Your task to perform on an android device: check out phone information Image 0: 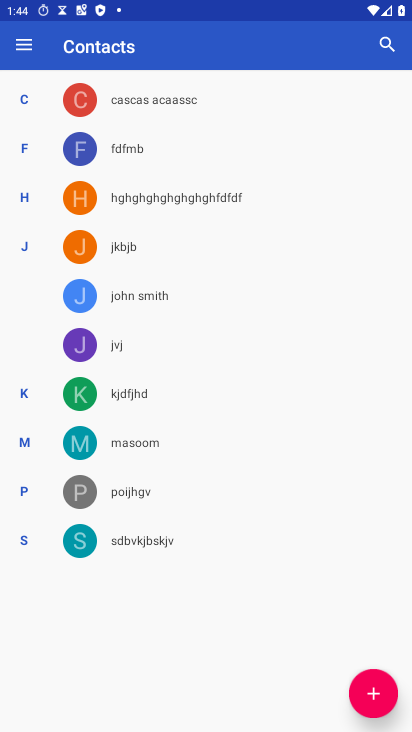
Step 0: press home button
Your task to perform on an android device: check out phone information Image 1: 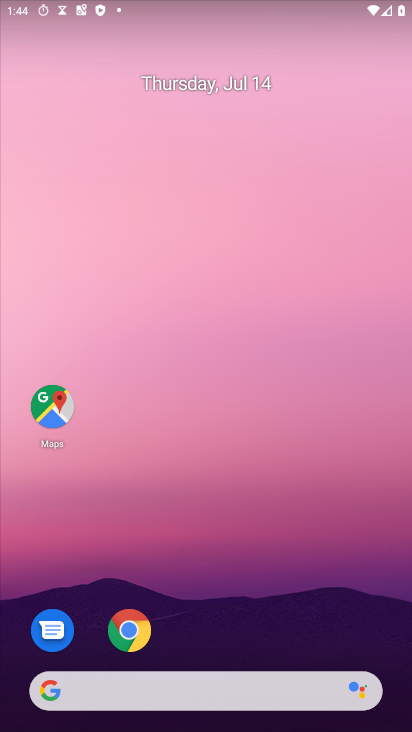
Step 1: drag from (175, 686) to (240, 153)
Your task to perform on an android device: check out phone information Image 2: 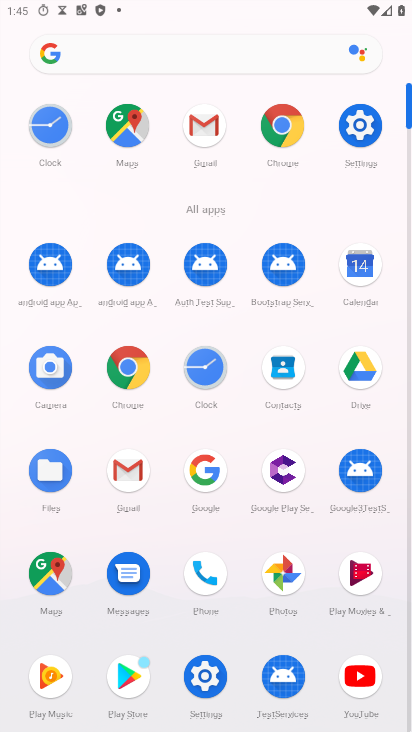
Step 2: click (211, 666)
Your task to perform on an android device: check out phone information Image 3: 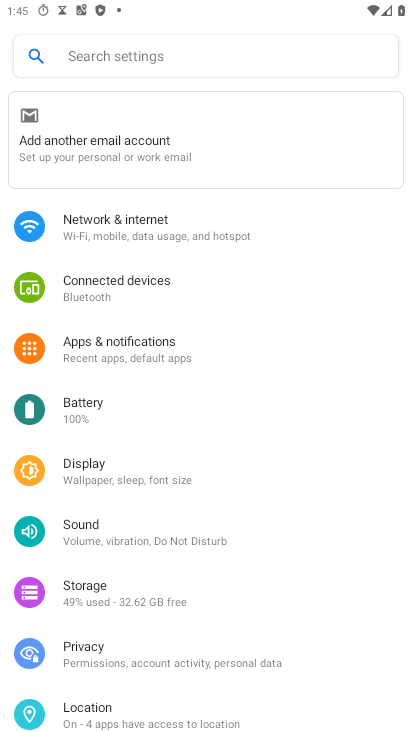
Step 3: drag from (203, 661) to (230, 169)
Your task to perform on an android device: check out phone information Image 4: 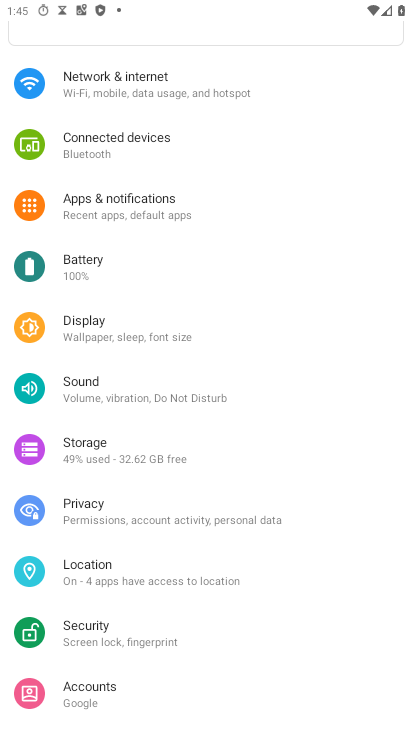
Step 4: drag from (227, 628) to (208, 113)
Your task to perform on an android device: check out phone information Image 5: 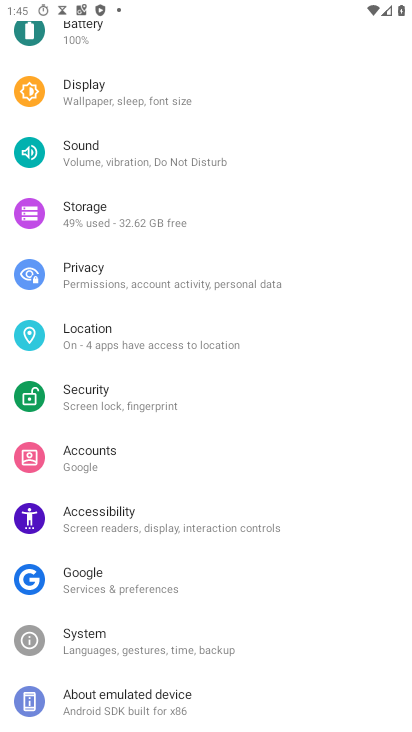
Step 5: click (163, 696)
Your task to perform on an android device: check out phone information Image 6: 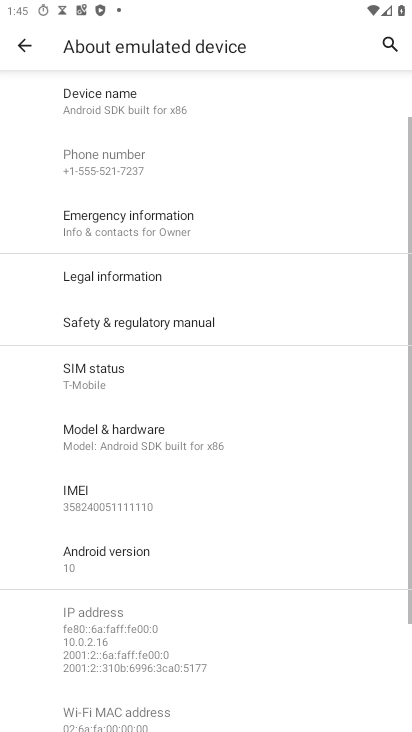
Step 6: task complete